Your task to perform on an android device: check android version Image 0: 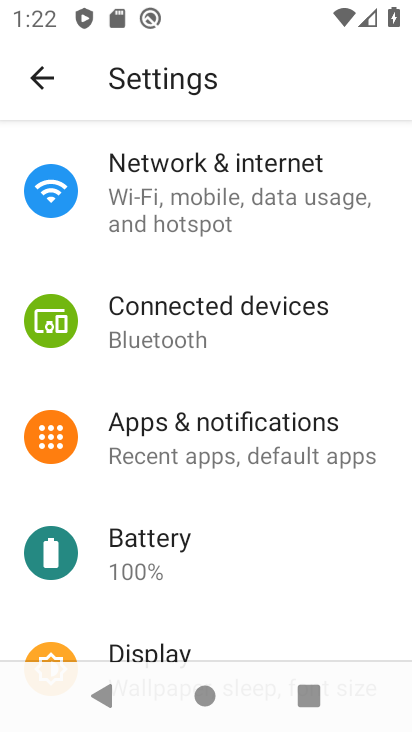
Step 0: press home button
Your task to perform on an android device: check android version Image 1: 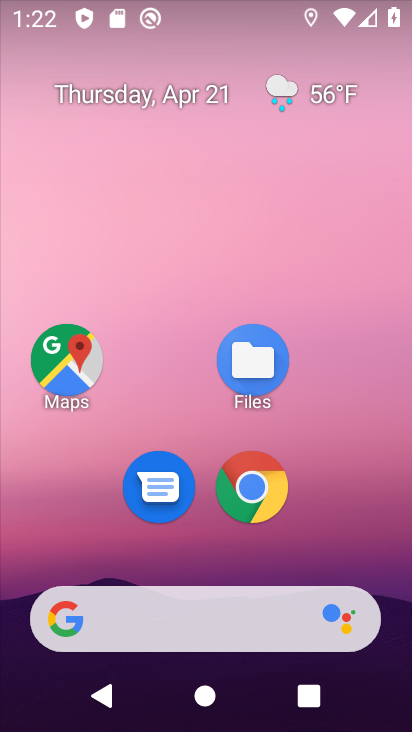
Step 1: drag from (375, 519) to (375, 166)
Your task to perform on an android device: check android version Image 2: 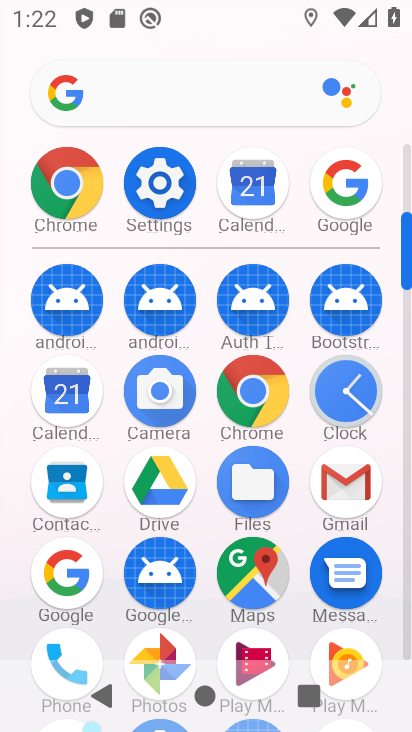
Step 2: click (178, 174)
Your task to perform on an android device: check android version Image 3: 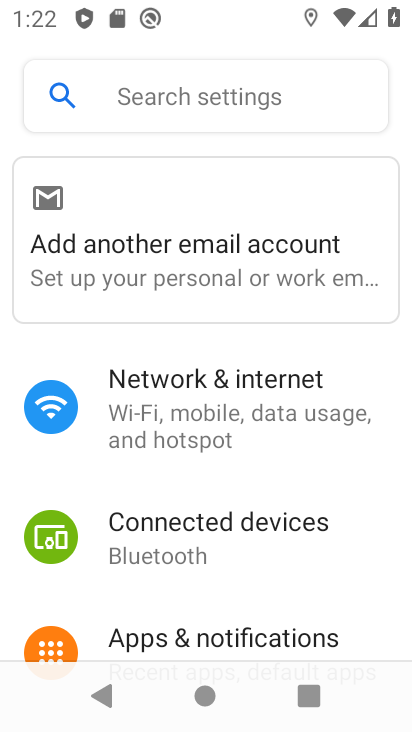
Step 3: drag from (287, 575) to (311, 271)
Your task to perform on an android device: check android version Image 4: 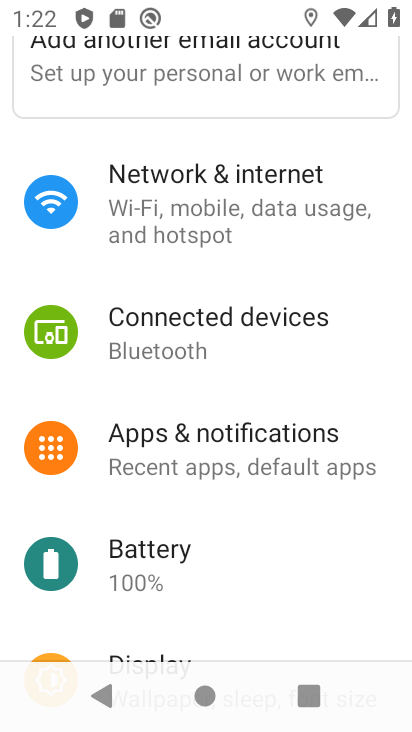
Step 4: drag from (314, 539) to (313, 288)
Your task to perform on an android device: check android version Image 5: 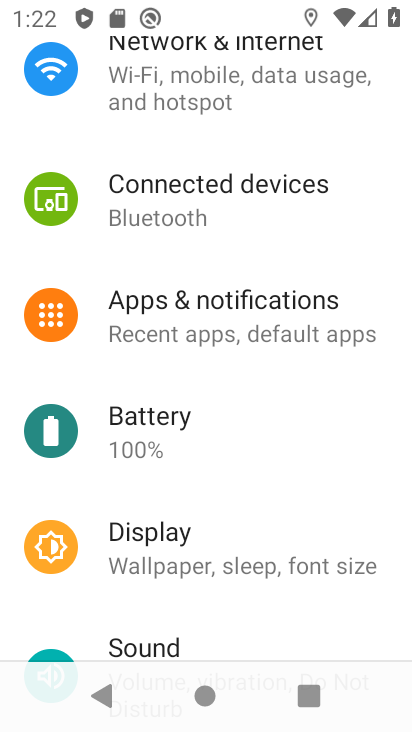
Step 5: drag from (315, 620) to (300, 382)
Your task to perform on an android device: check android version Image 6: 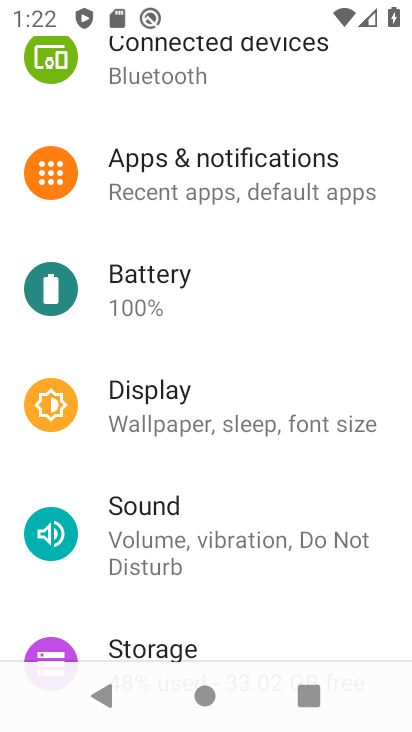
Step 6: drag from (334, 616) to (329, 346)
Your task to perform on an android device: check android version Image 7: 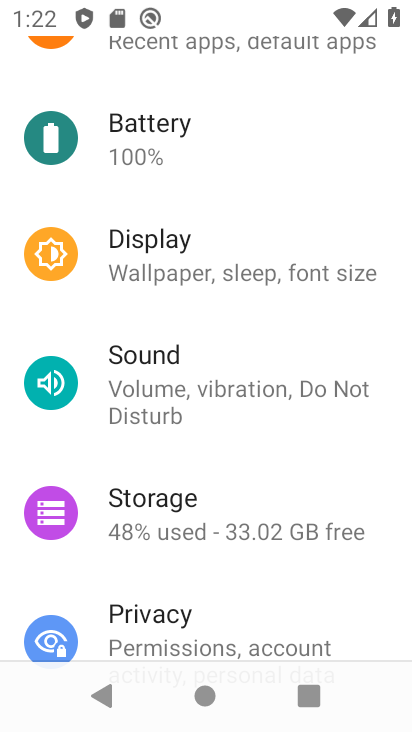
Step 7: drag from (323, 621) to (342, 282)
Your task to perform on an android device: check android version Image 8: 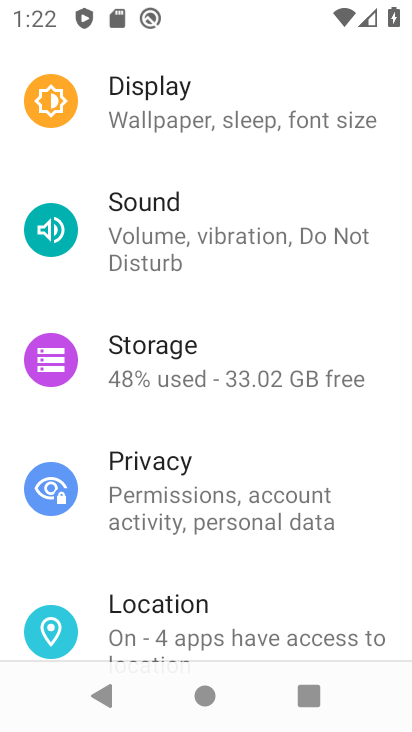
Step 8: drag from (333, 541) to (362, 264)
Your task to perform on an android device: check android version Image 9: 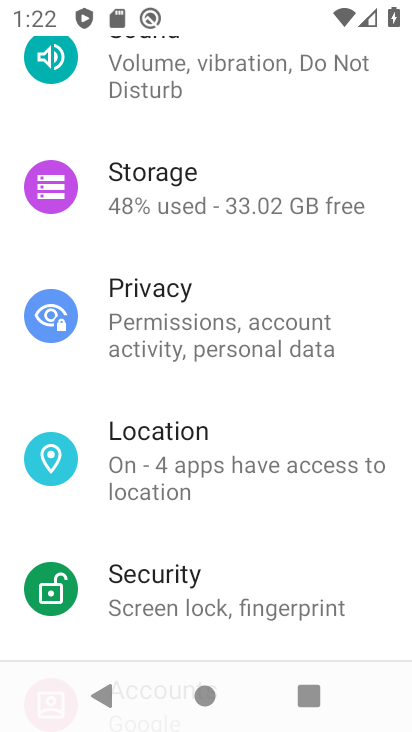
Step 9: drag from (329, 557) to (321, 237)
Your task to perform on an android device: check android version Image 10: 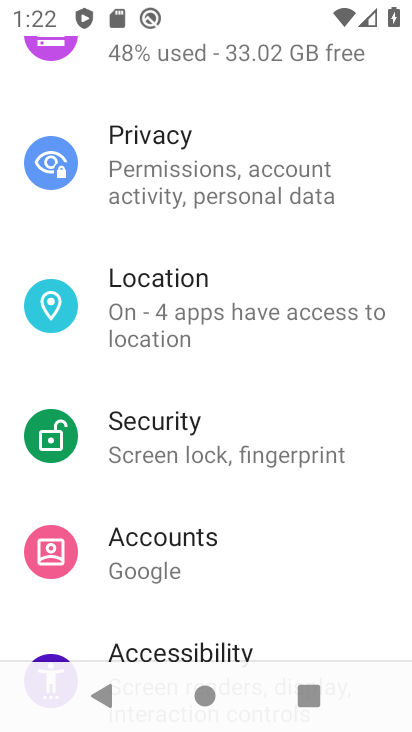
Step 10: drag from (297, 470) to (307, 276)
Your task to perform on an android device: check android version Image 11: 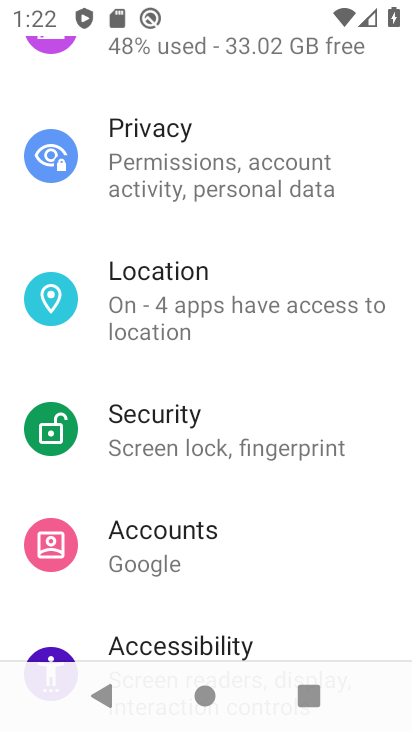
Step 11: drag from (297, 571) to (307, 261)
Your task to perform on an android device: check android version Image 12: 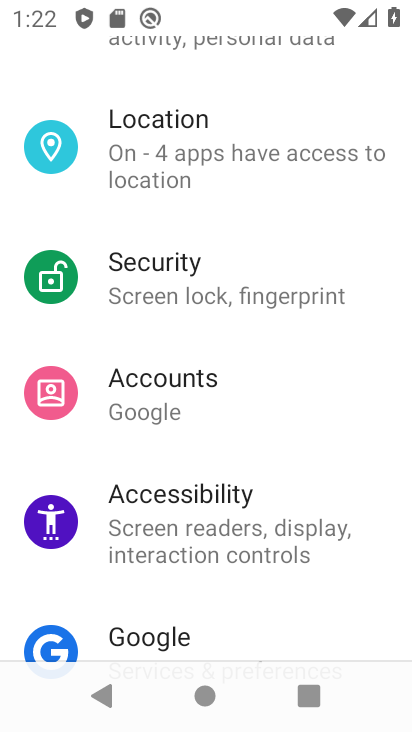
Step 12: drag from (270, 581) to (271, 176)
Your task to perform on an android device: check android version Image 13: 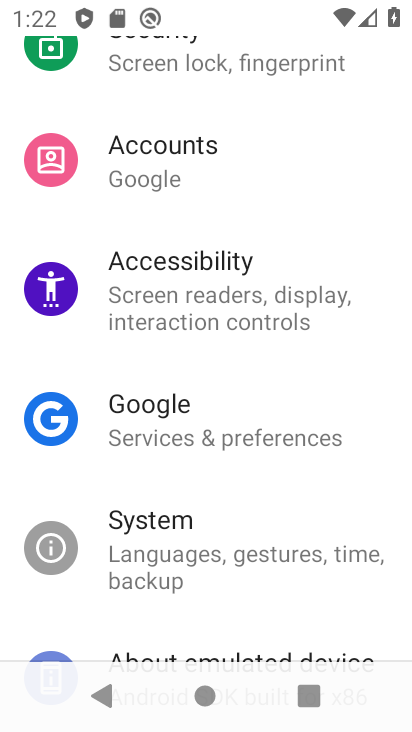
Step 13: drag from (291, 618) to (290, 264)
Your task to perform on an android device: check android version Image 14: 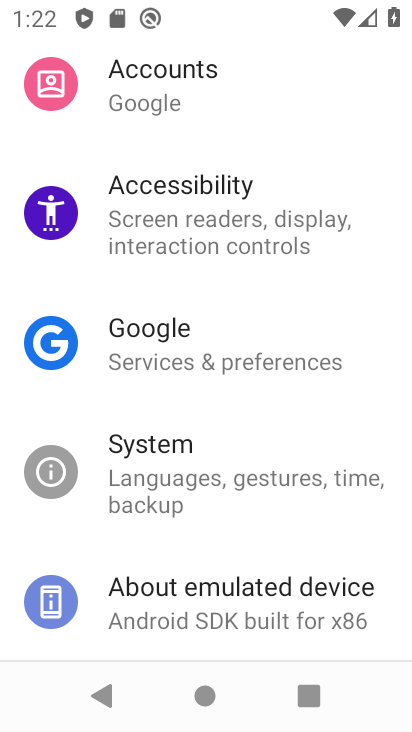
Step 14: click (273, 609)
Your task to perform on an android device: check android version Image 15: 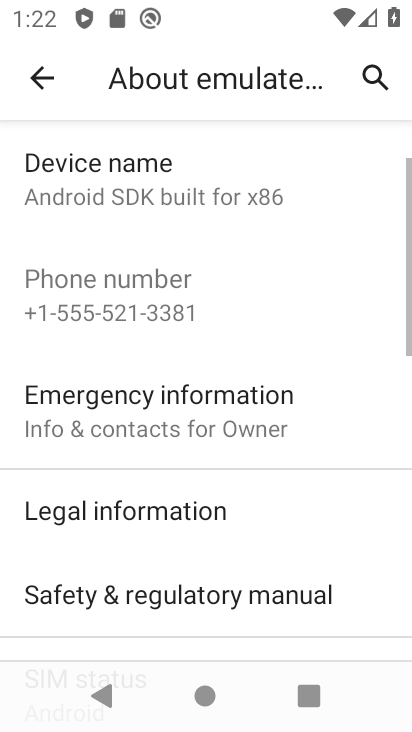
Step 15: drag from (336, 531) to (332, 124)
Your task to perform on an android device: check android version Image 16: 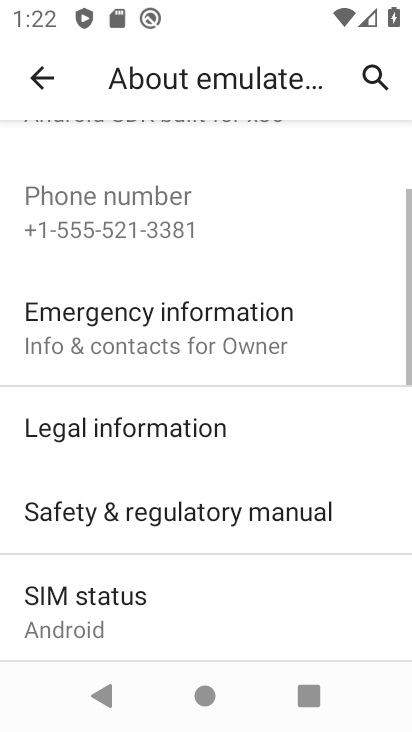
Step 16: drag from (209, 626) to (285, 198)
Your task to perform on an android device: check android version Image 17: 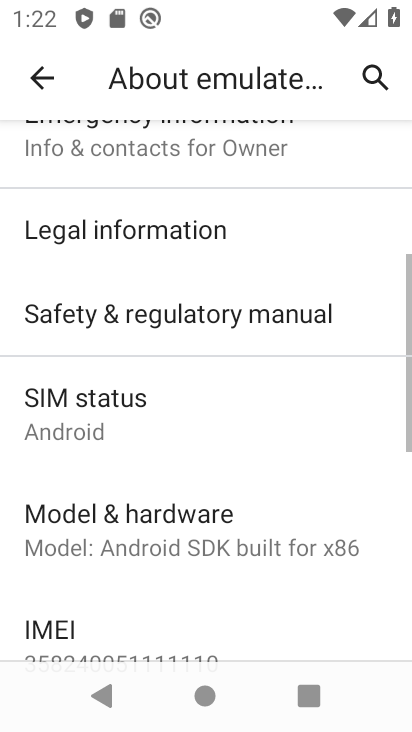
Step 17: drag from (242, 510) to (264, 121)
Your task to perform on an android device: check android version Image 18: 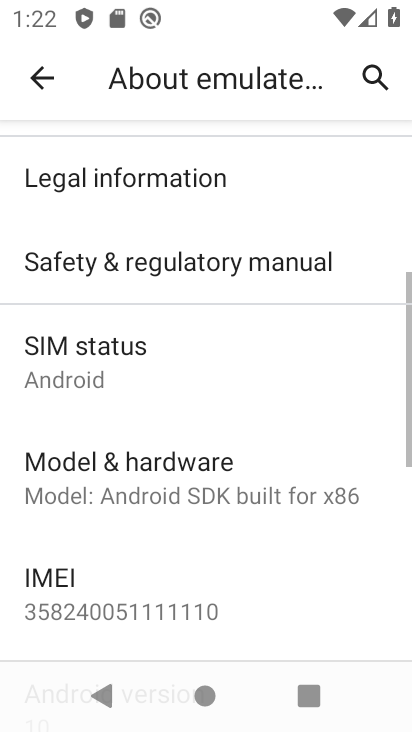
Step 18: drag from (300, 520) to (297, 179)
Your task to perform on an android device: check android version Image 19: 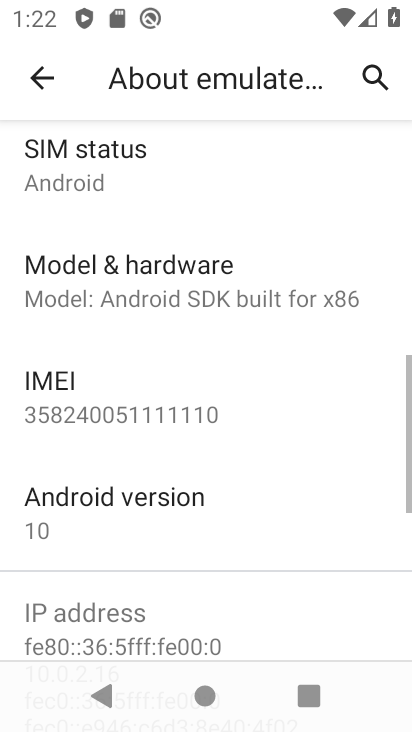
Step 19: click (203, 501)
Your task to perform on an android device: check android version Image 20: 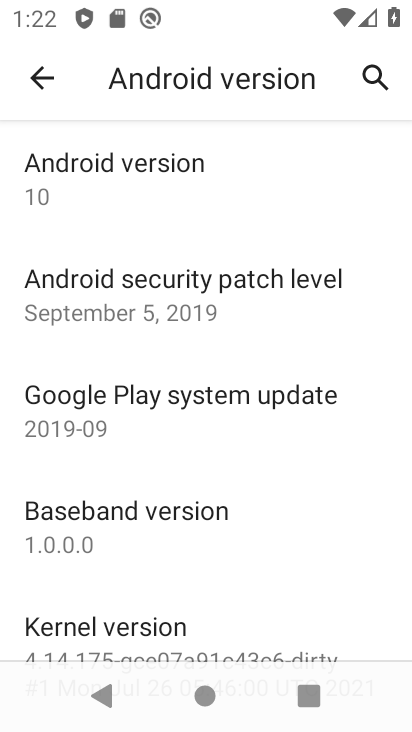
Step 20: task complete